Your task to perform on an android device: Open Google Maps Image 0: 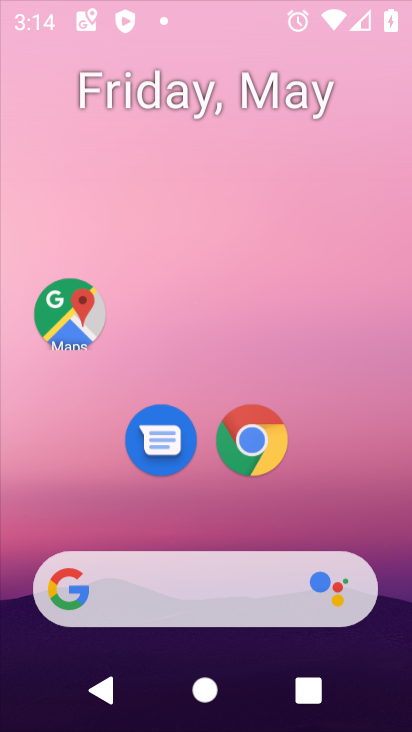
Step 0: drag from (394, 521) to (334, 173)
Your task to perform on an android device: Open Google Maps Image 1: 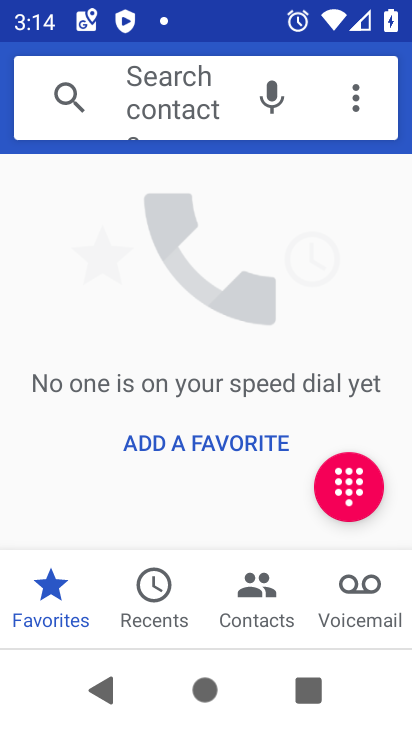
Step 1: press home button
Your task to perform on an android device: Open Google Maps Image 2: 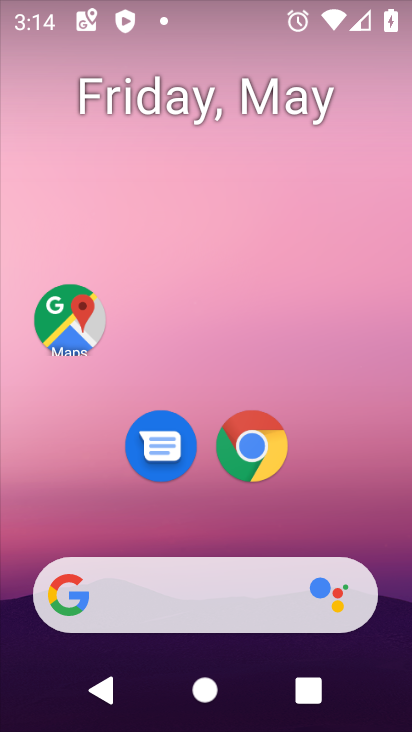
Step 2: click (81, 298)
Your task to perform on an android device: Open Google Maps Image 3: 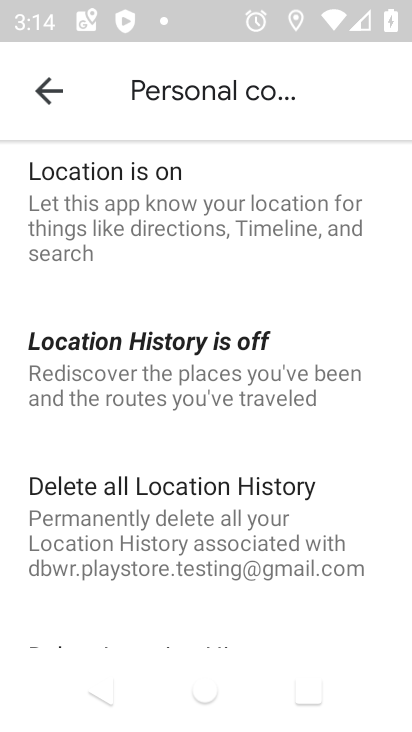
Step 3: click (54, 103)
Your task to perform on an android device: Open Google Maps Image 4: 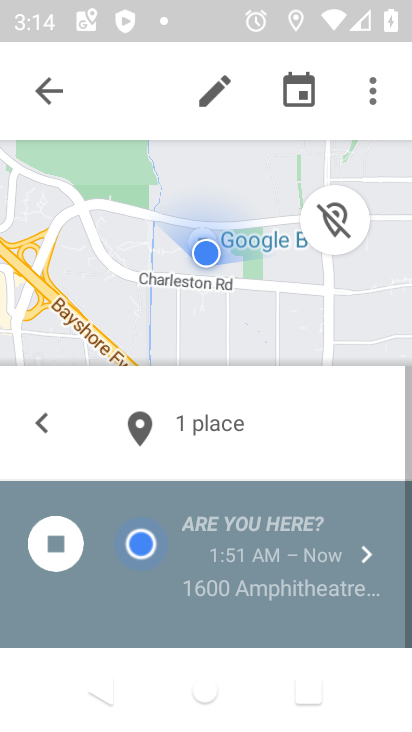
Step 4: click (54, 103)
Your task to perform on an android device: Open Google Maps Image 5: 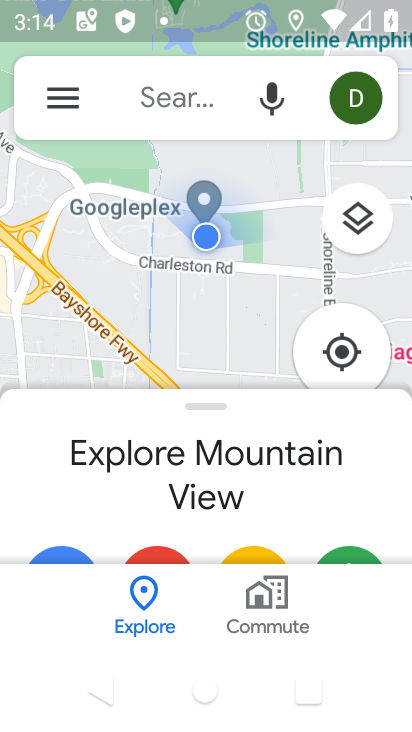
Step 5: task complete